Your task to perform on an android device: turn on location history Image 0: 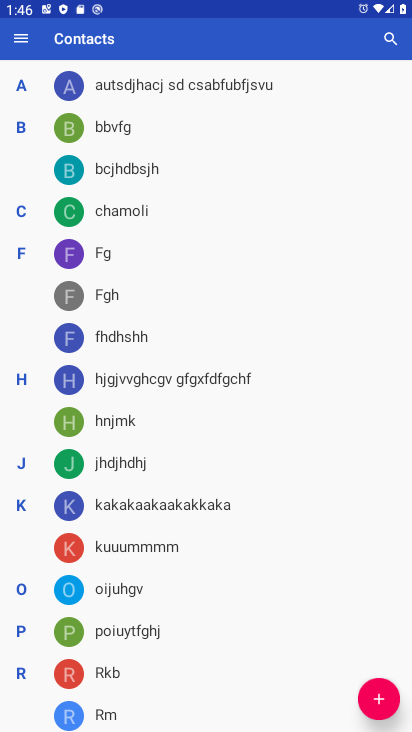
Step 0: press home button
Your task to perform on an android device: turn on location history Image 1: 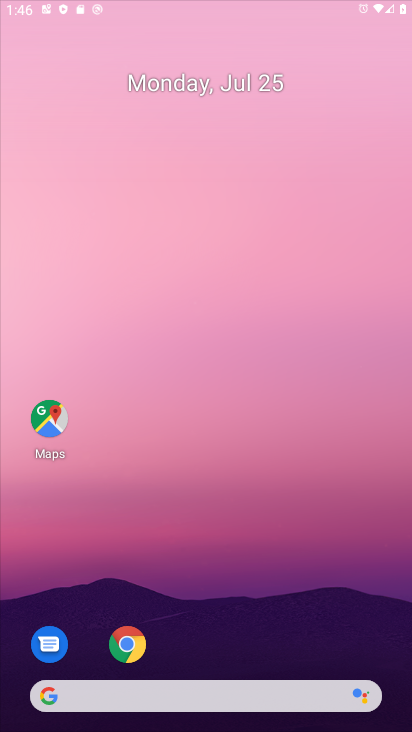
Step 1: drag from (367, 663) to (166, 92)
Your task to perform on an android device: turn on location history Image 2: 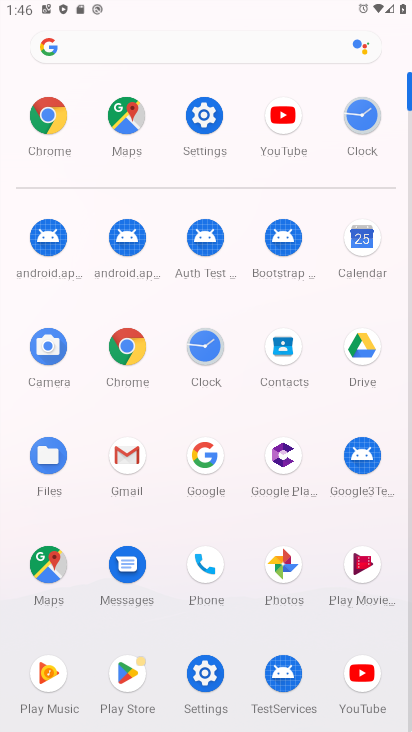
Step 2: click (195, 683)
Your task to perform on an android device: turn on location history Image 3: 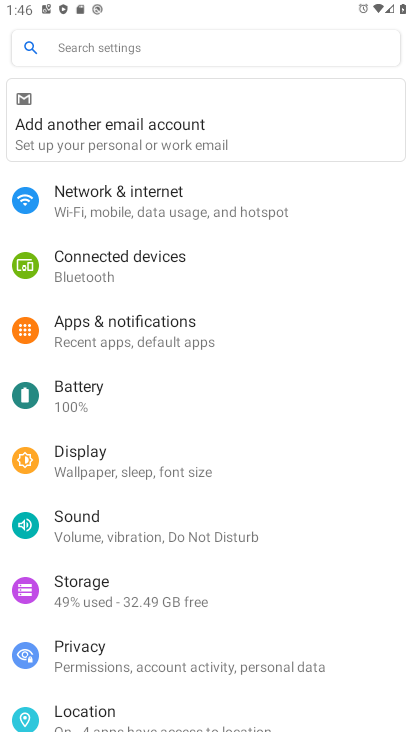
Step 3: click (93, 718)
Your task to perform on an android device: turn on location history Image 4: 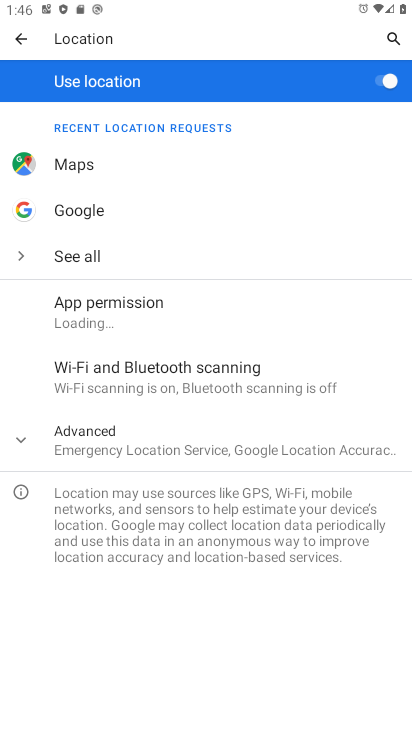
Step 4: click (107, 450)
Your task to perform on an android device: turn on location history Image 5: 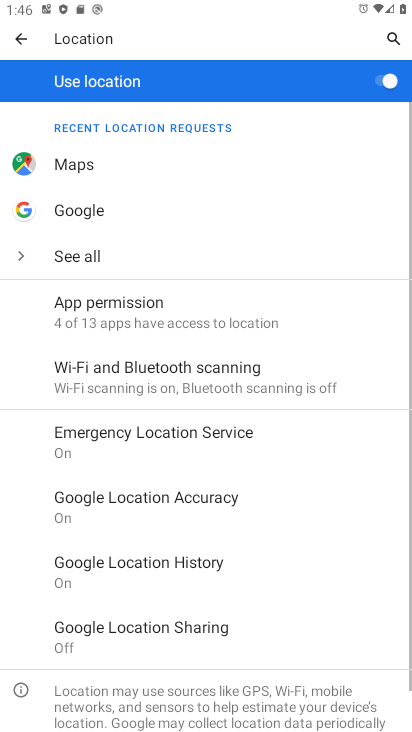
Step 5: click (209, 561)
Your task to perform on an android device: turn on location history Image 6: 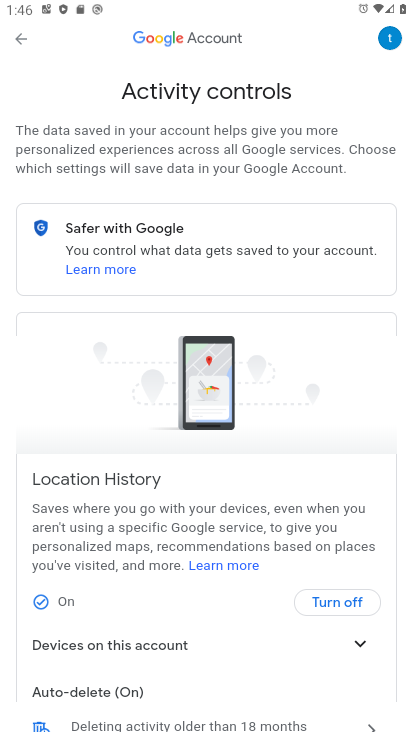
Step 6: click (330, 604)
Your task to perform on an android device: turn on location history Image 7: 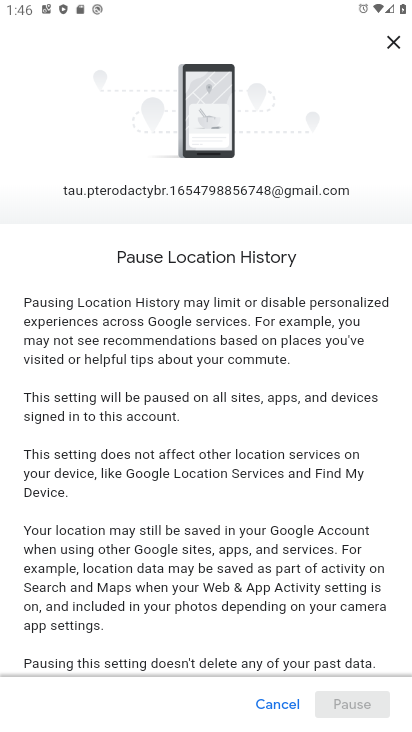
Step 7: task complete